Your task to perform on an android device: move a message to another label in the gmail app Image 0: 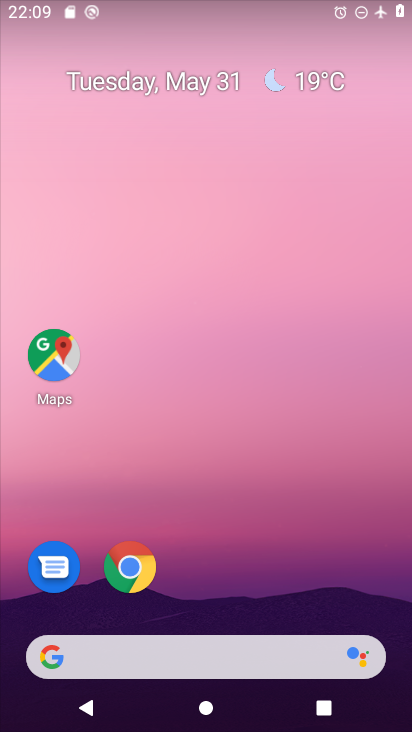
Step 0: drag from (172, 583) to (172, 291)
Your task to perform on an android device: move a message to another label in the gmail app Image 1: 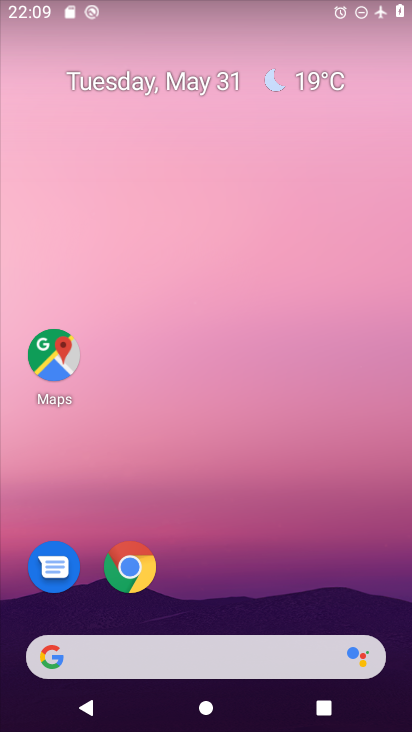
Step 1: drag from (207, 638) to (206, 233)
Your task to perform on an android device: move a message to another label in the gmail app Image 2: 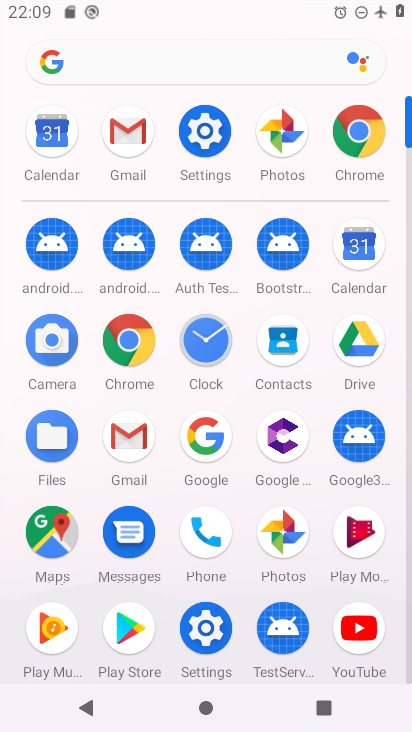
Step 2: click (142, 136)
Your task to perform on an android device: move a message to another label in the gmail app Image 3: 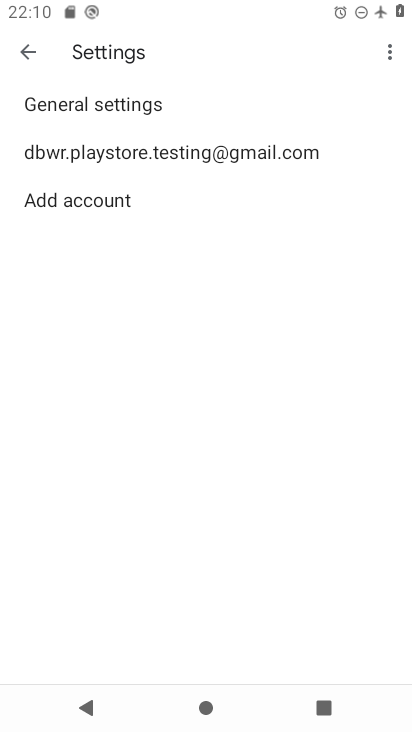
Step 3: press back button
Your task to perform on an android device: move a message to another label in the gmail app Image 4: 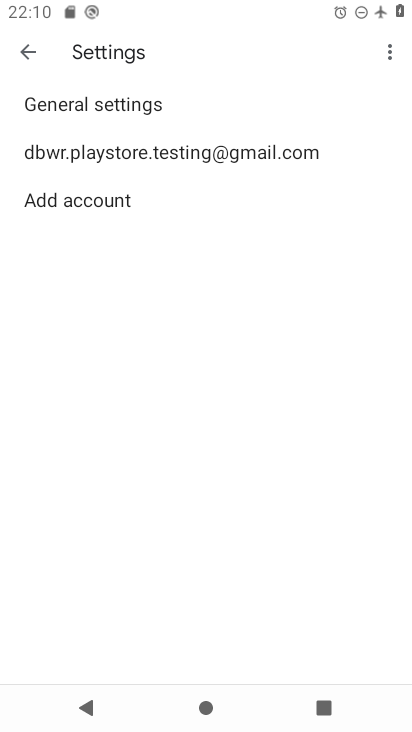
Step 4: press back button
Your task to perform on an android device: move a message to another label in the gmail app Image 5: 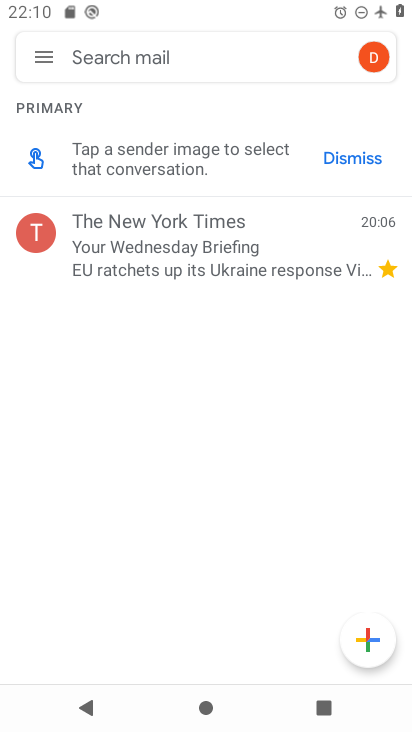
Step 5: click (211, 218)
Your task to perform on an android device: move a message to another label in the gmail app Image 6: 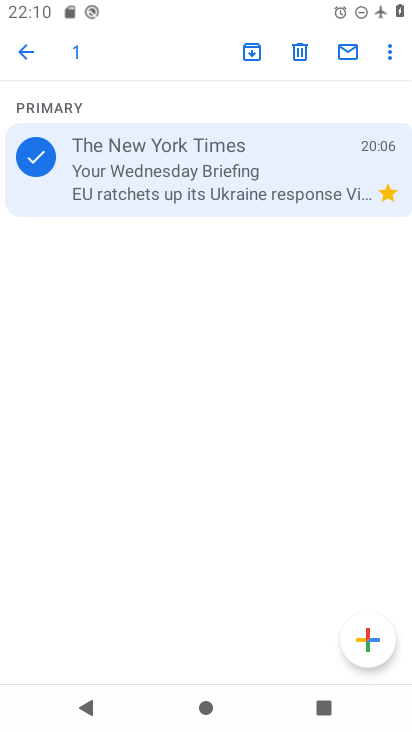
Step 6: click (388, 49)
Your task to perform on an android device: move a message to another label in the gmail app Image 7: 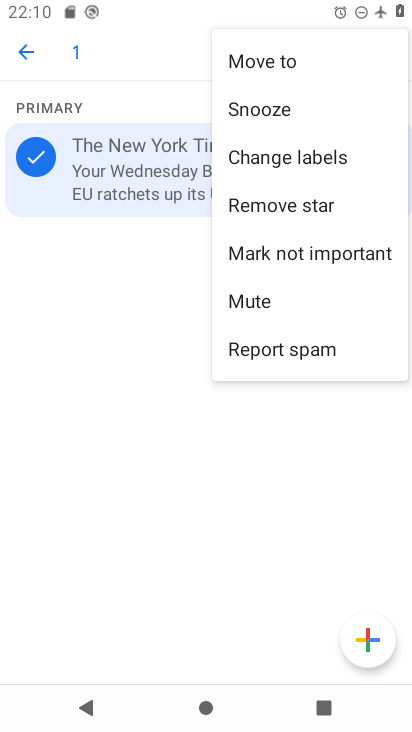
Step 7: click (266, 162)
Your task to perform on an android device: move a message to another label in the gmail app Image 8: 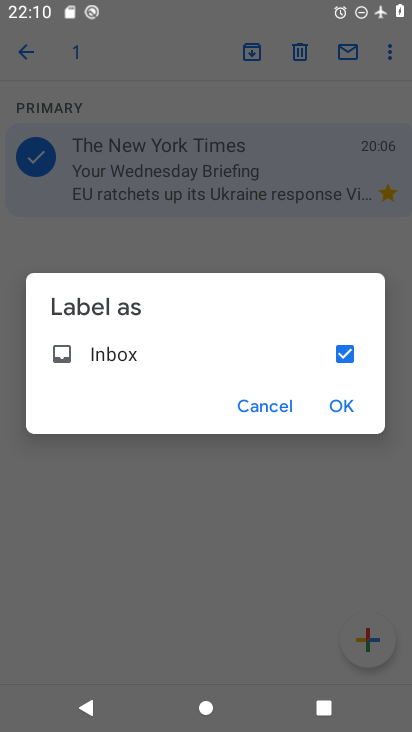
Step 8: click (346, 408)
Your task to perform on an android device: move a message to another label in the gmail app Image 9: 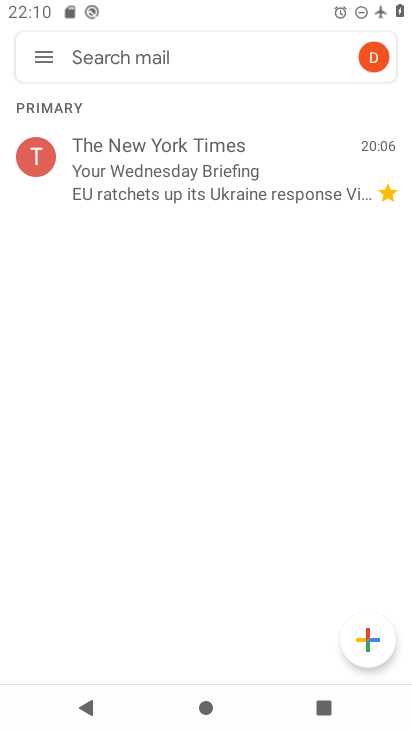
Step 9: task complete